Your task to perform on an android device: change keyboard looks Image 0: 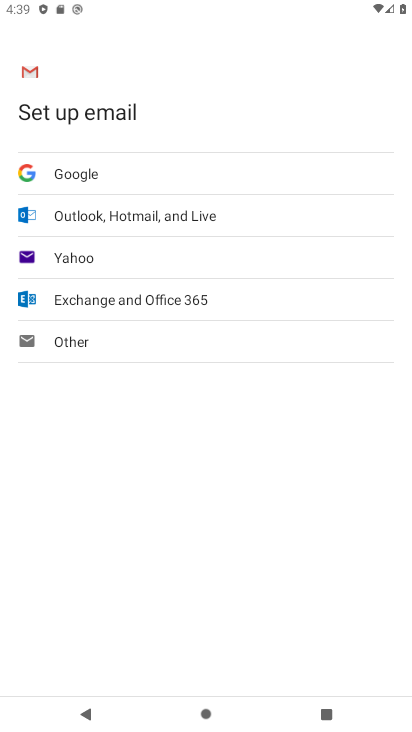
Step 0: press home button
Your task to perform on an android device: change keyboard looks Image 1: 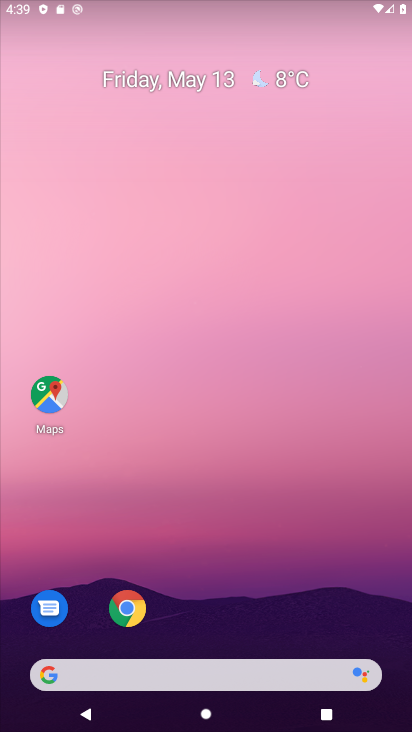
Step 1: drag from (246, 597) to (269, 256)
Your task to perform on an android device: change keyboard looks Image 2: 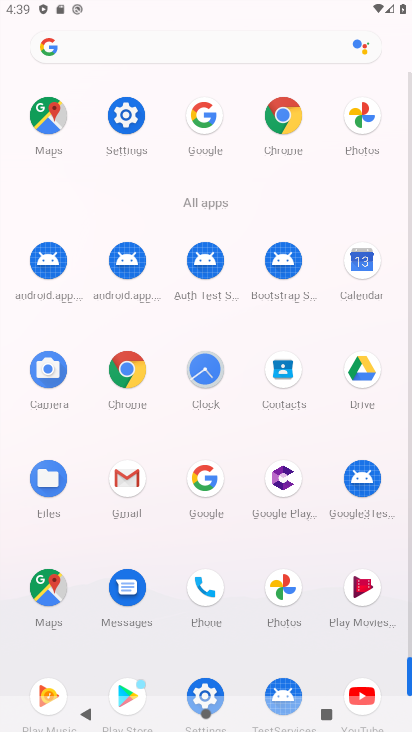
Step 2: click (124, 116)
Your task to perform on an android device: change keyboard looks Image 3: 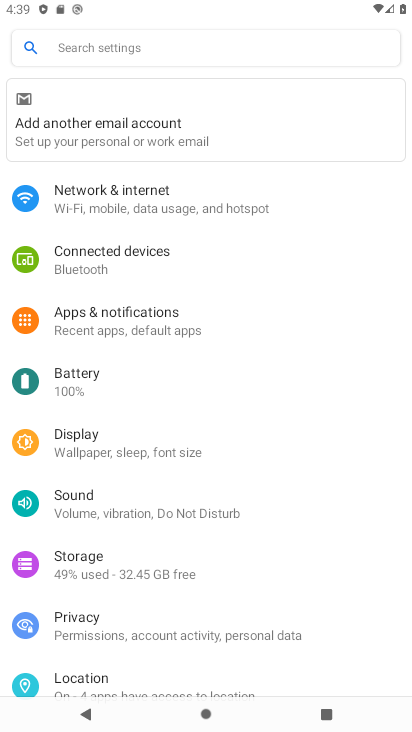
Step 3: drag from (136, 549) to (187, 438)
Your task to perform on an android device: change keyboard looks Image 4: 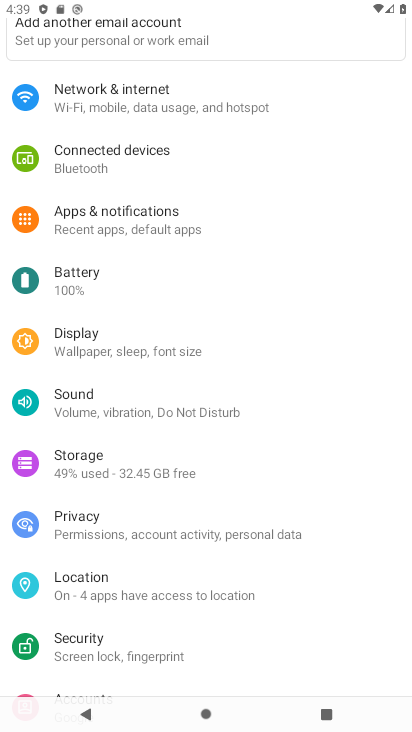
Step 4: drag from (164, 541) to (214, 448)
Your task to perform on an android device: change keyboard looks Image 5: 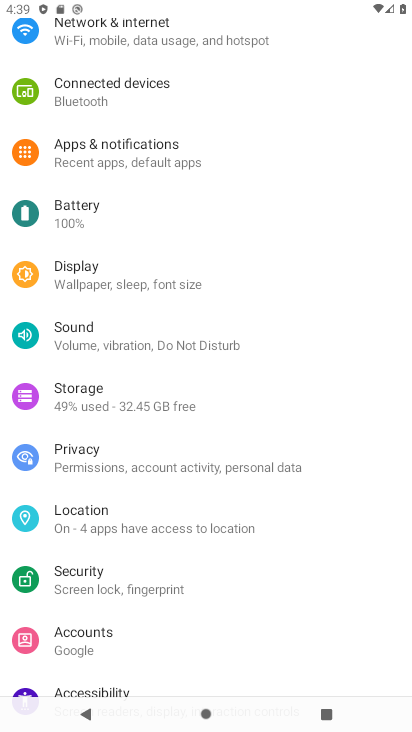
Step 5: drag from (174, 574) to (248, 427)
Your task to perform on an android device: change keyboard looks Image 6: 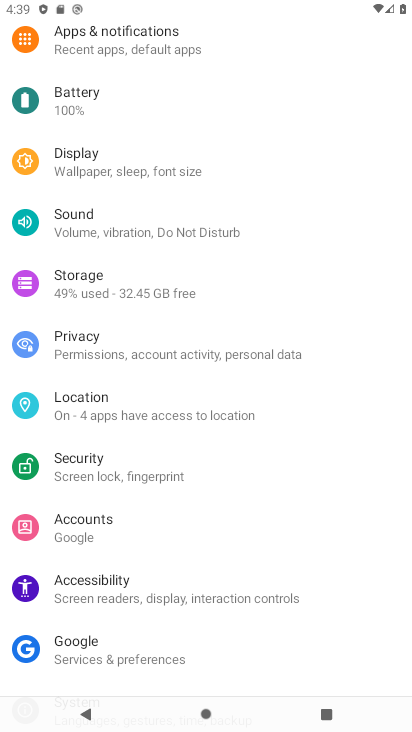
Step 6: drag from (171, 570) to (229, 410)
Your task to perform on an android device: change keyboard looks Image 7: 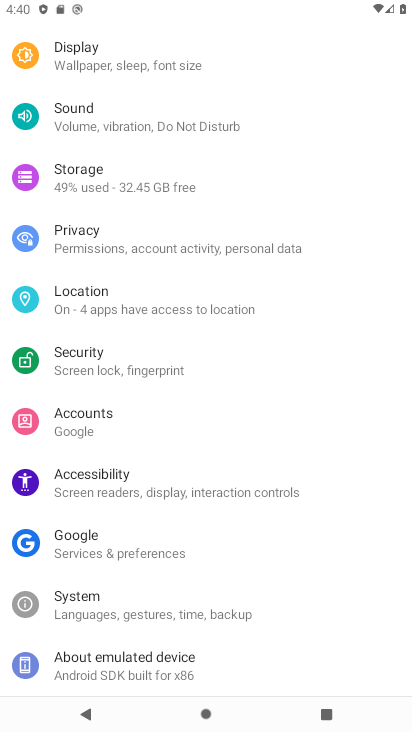
Step 7: drag from (138, 571) to (222, 429)
Your task to perform on an android device: change keyboard looks Image 8: 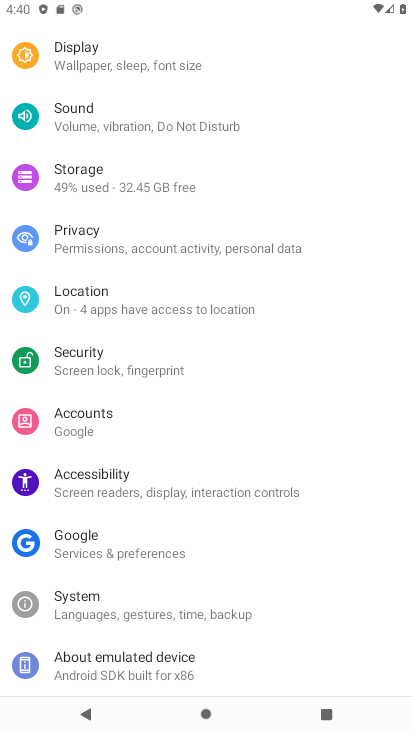
Step 8: click (122, 607)
Your task to perform on an android device: change keyboard looks Image 9: 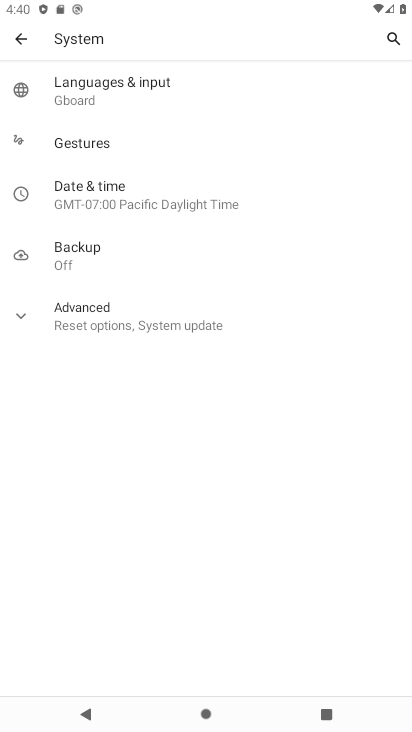
Step 9: click (96, 98)
Your task to perform on an android device: change keyboard looks Image 10: 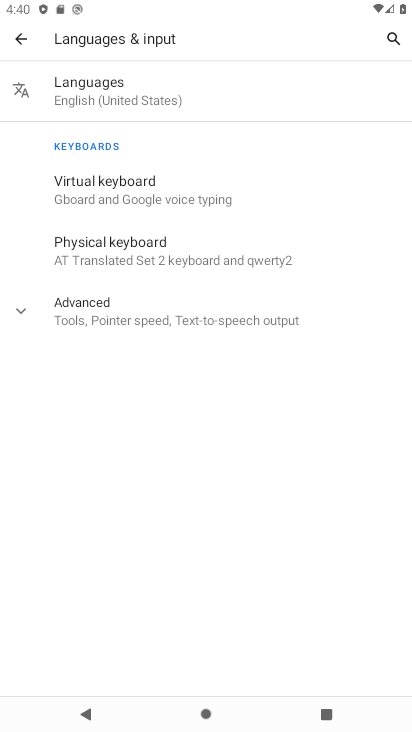
Step 10: click (106, 179)
Your task to perform on an android device: change keyboard looks Image 11: 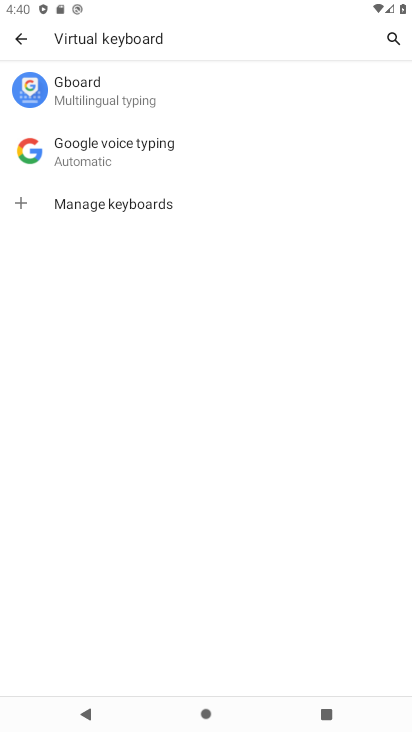
Step 11: click (101, 100)
Your task to perform on an android device: change keyboard looks Image 12: 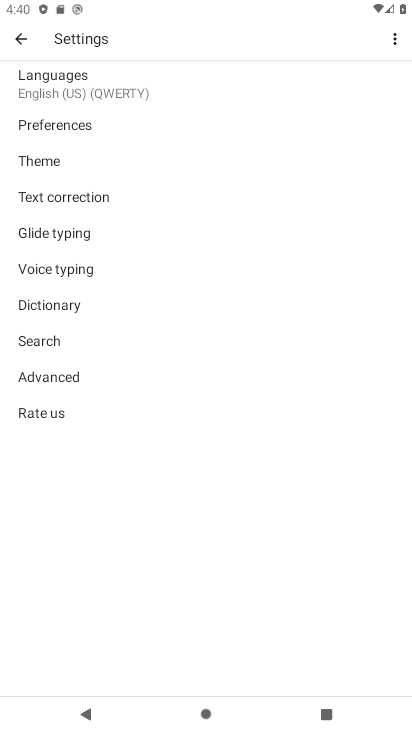
Step 12: click (55, 167)
Your task to perform on an android device: change keyboard looks Image 13: 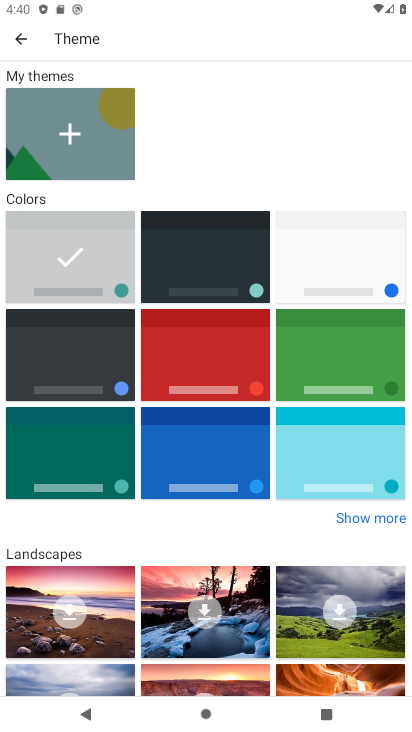
Step 13: click (355, 368)
Your task to perform on an android device: change keyboard looks Image 14: 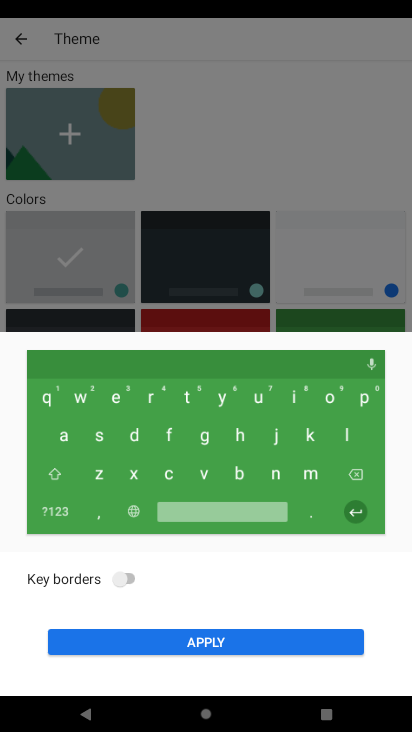
Step 14: click (122, 578)
Your task to perform on an android device: change keyboard looks Image 15: 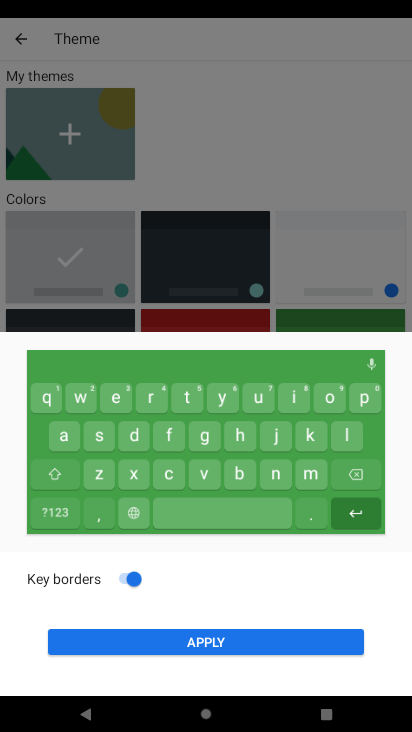
Step 15: click (246, 644)
Your task to perform on an android device: change keyboard looks Image 16: 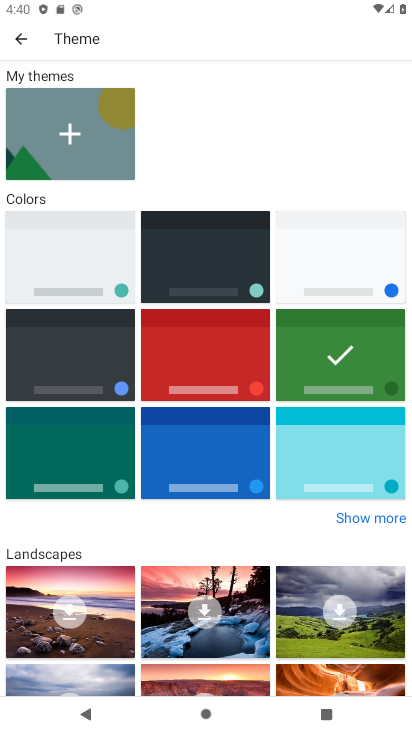
Step 16: task complete